Your task to perform on an android device: check the backup settings in the google photos Image 0: 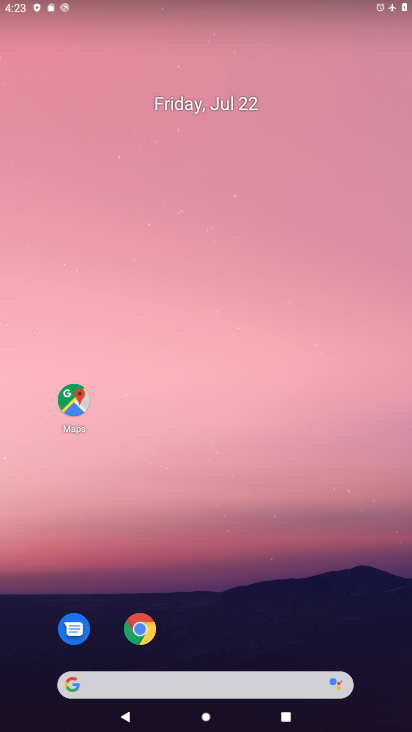
Step 0: drag from (328, 617) to (259, 112)
Your task to perform on an android device: check the backup settings in the google photos Image 1: 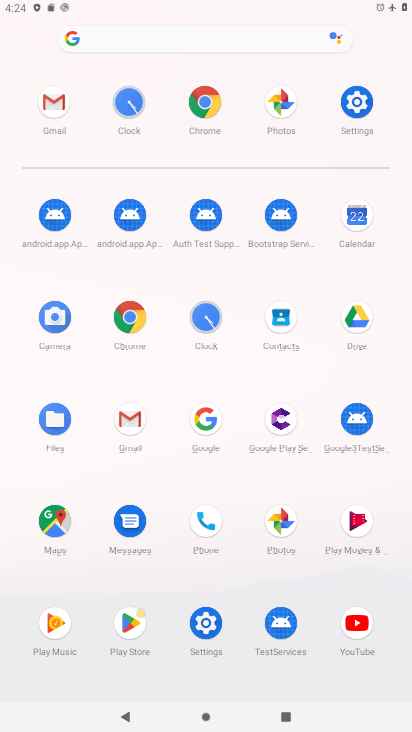
Step 1: click (281, 521)
Your task to perform on an android device: check the backup settings in the google photos Image 2: 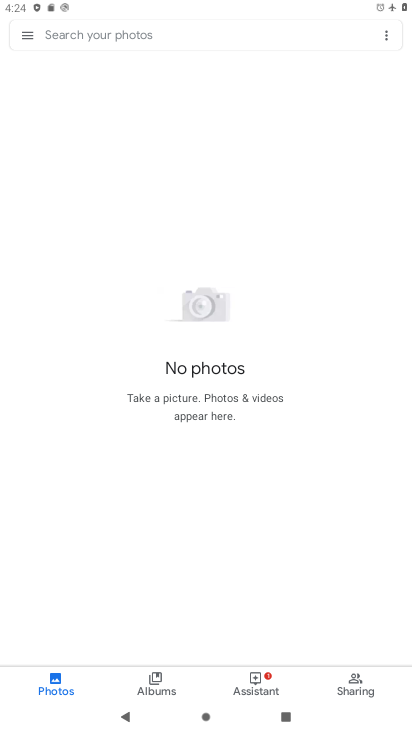
Step 2: click (29, 30)
Your task to perform on an android device: check the backup settings in the google photos Image 3: 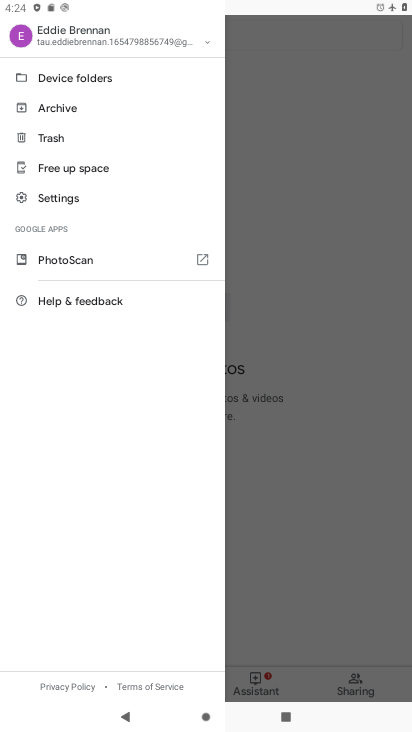
Step 3: click (63, 202)
Your task to perform on an android device: check the backup settings in the google photos Image 4: 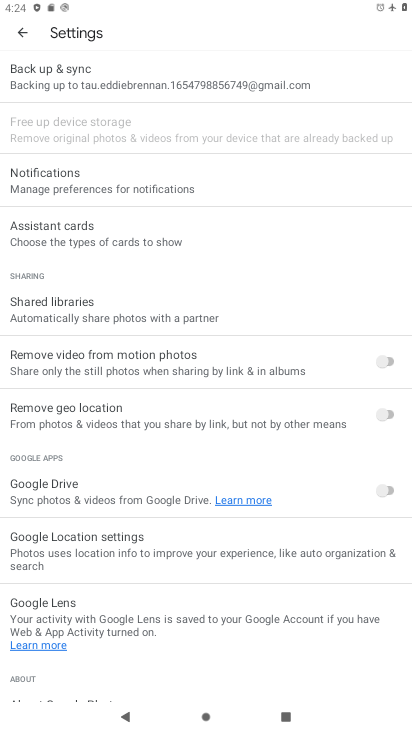
Step 4: click (151, 76)
Your task to perform on an android device: check the backup settings in the google photos Image 5: 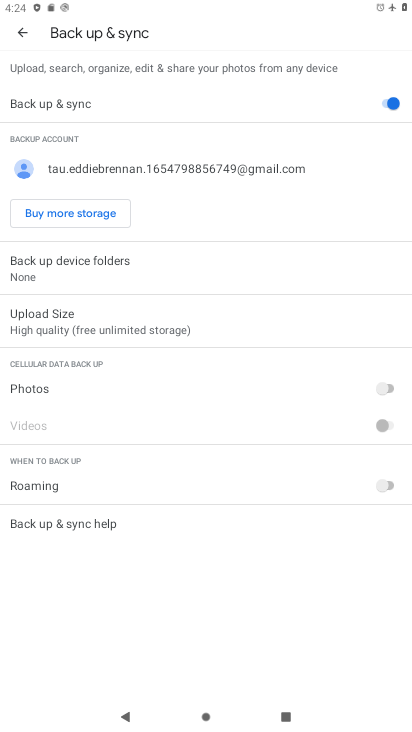
Step 5: task complete